Your task to perform on an android device: uninstall "Mercado Libre" Image 0: 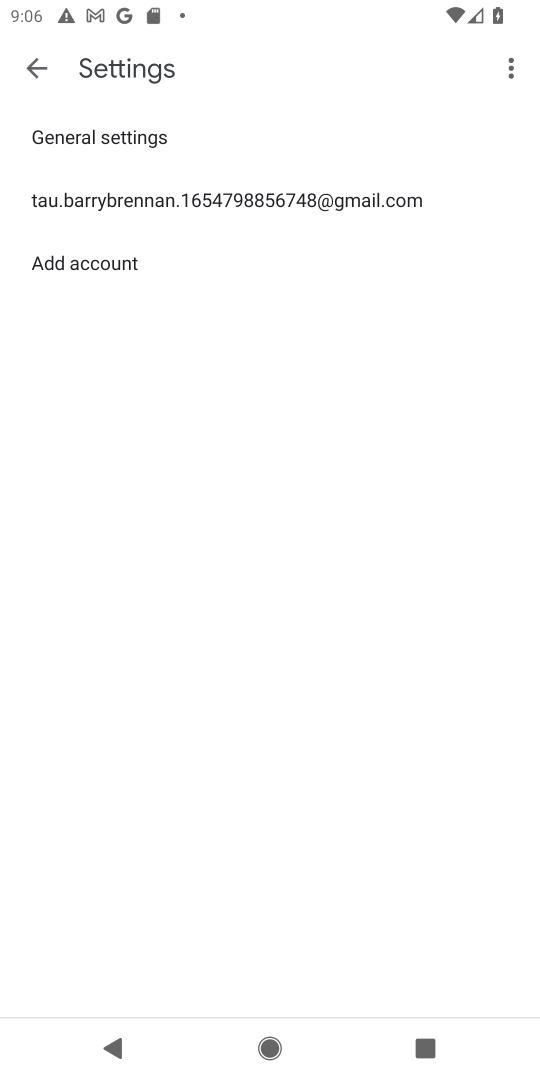
Step 0: press home button
Your task to perform on an android device: uninstall "Mercado Libre" Image 1: 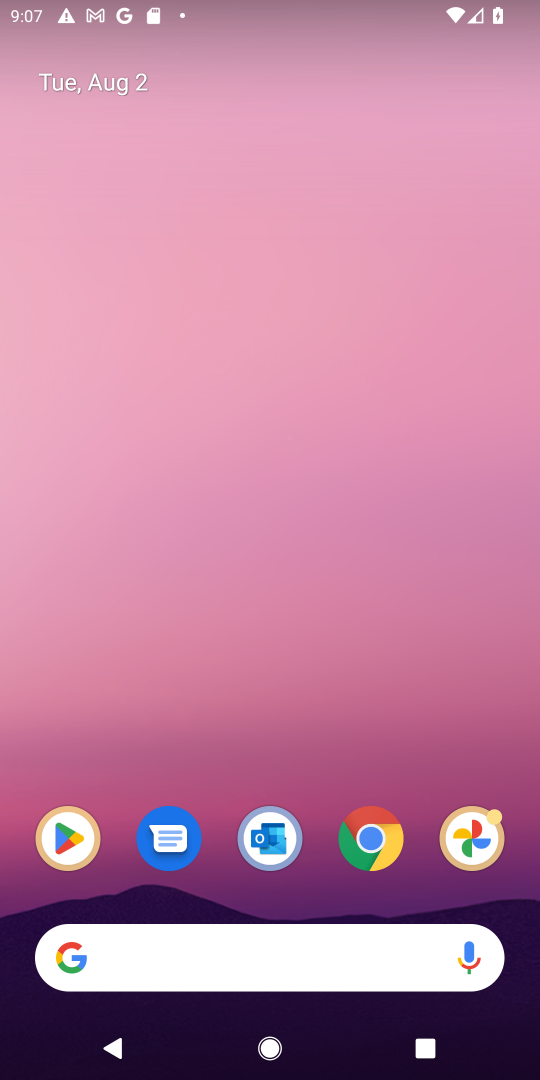
Step 1: drag from (306, 772) to (336, 64)
Your task to perform on an android device: uninstall "Mercado Libre" Image 2: 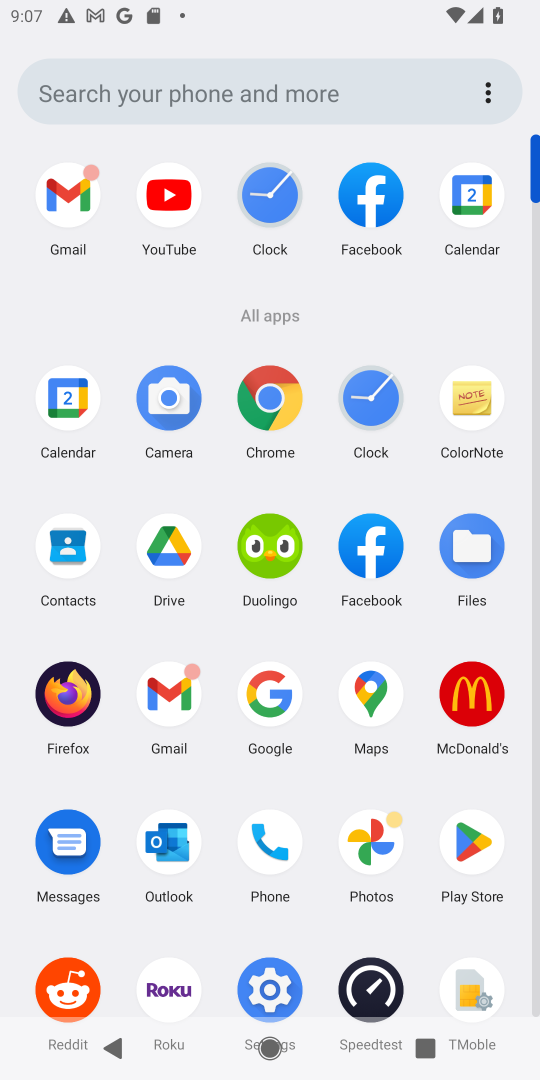
Step 2: click (483, 853)
Your task to perform on an android device: uninstall "Mercado Libre" Image 3: 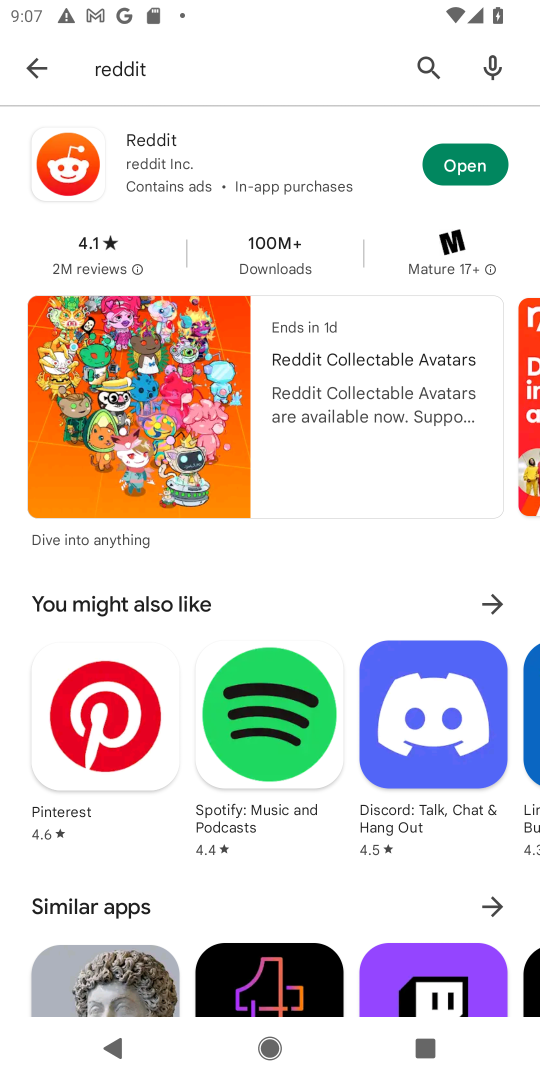
Step 3: click (427, 58)
Your task to perform on an android device: uninstall "Mercado Libre" Image 4: 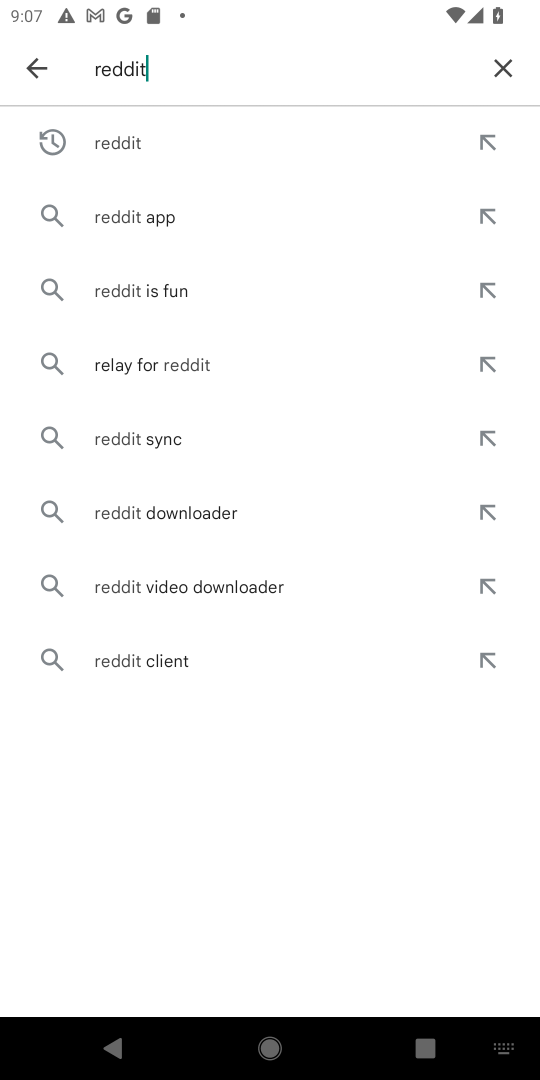
Step 4: click (505, 77)
Your task to perform on an android device: uninstall "Mercado Libre" Image 5: 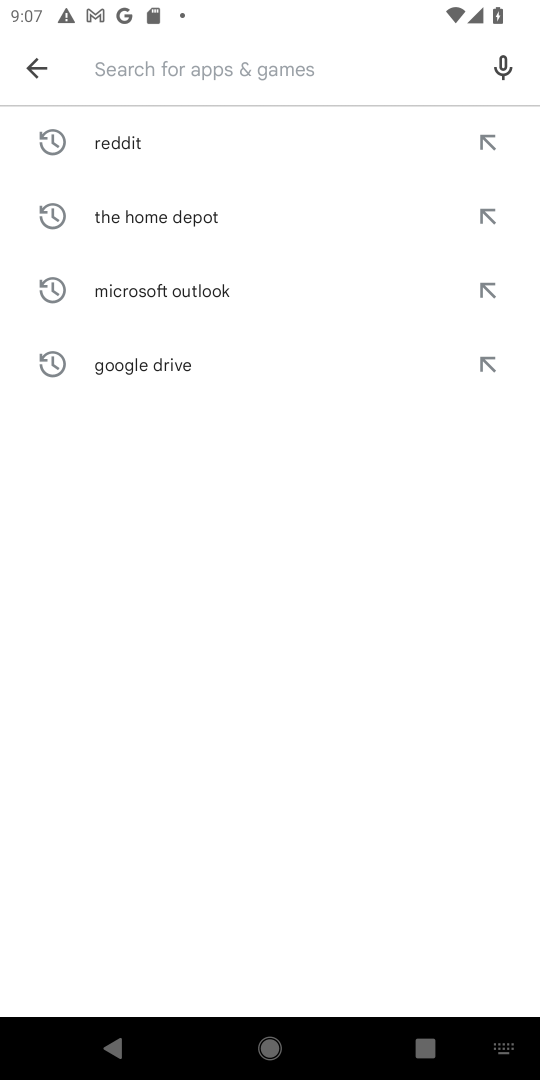
Step 5: click (408, 77)
Your task to perform on an android device: uninstall "Mercado Libre" Image 6: 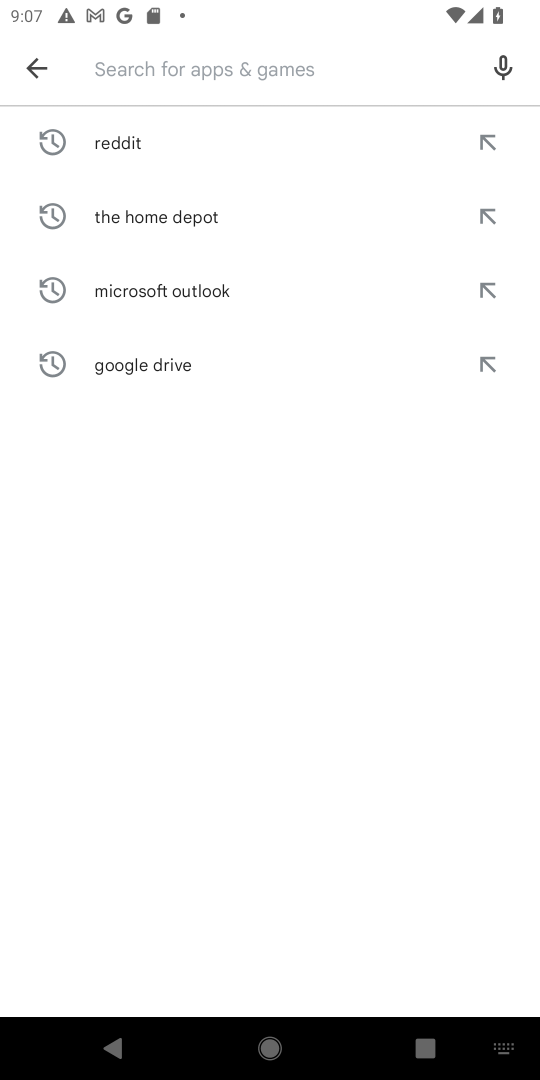
Step 6: type "mercado"
Your task to perform on an android device: uninstall "Mercado Libre" Image 7: 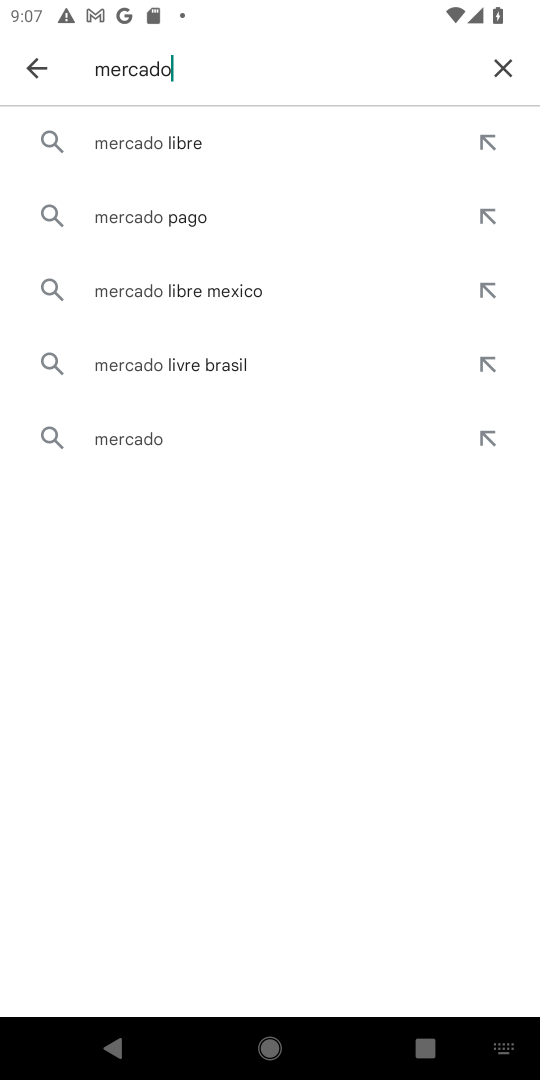
Step 7: click (391, 139)
Your task to perform on an android device: uninstall "Mercado Libre" Image 8: 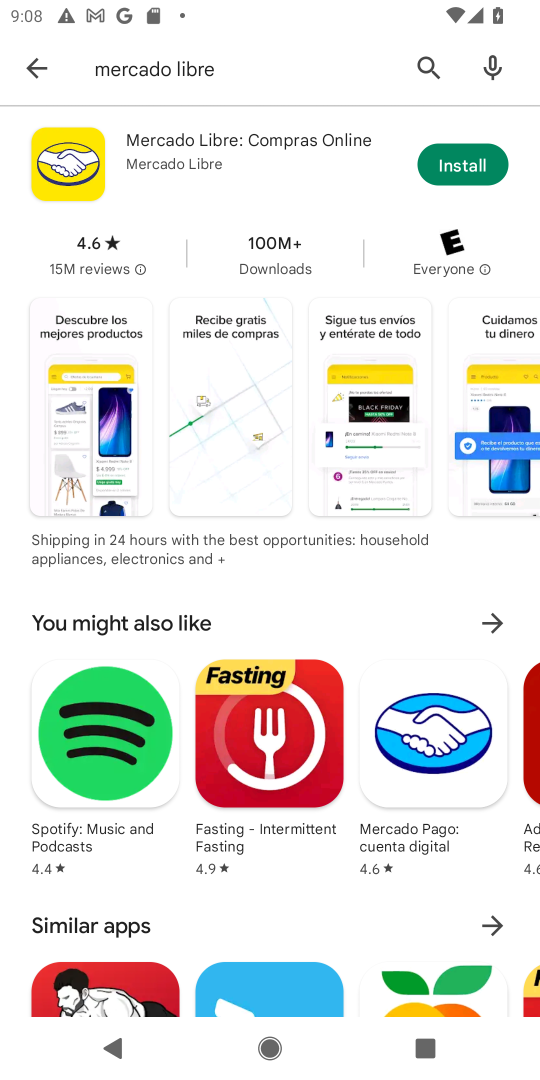
Step 8: task complete